Your task to perform on an android device: turn on wifi Image 0: 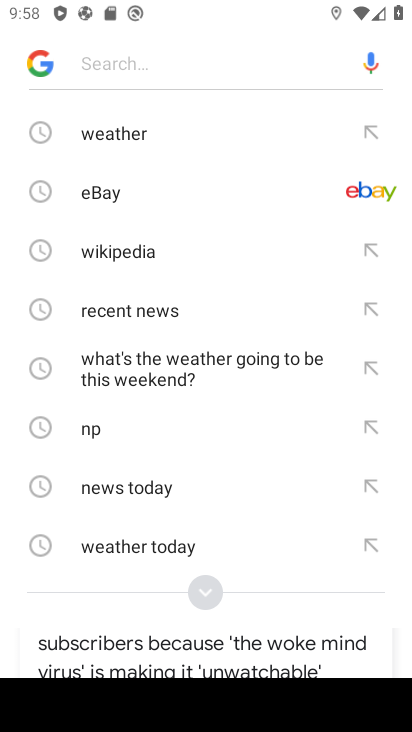
Step 0: press home button
Your task to perform on an android device: turn on wifi Image 1: 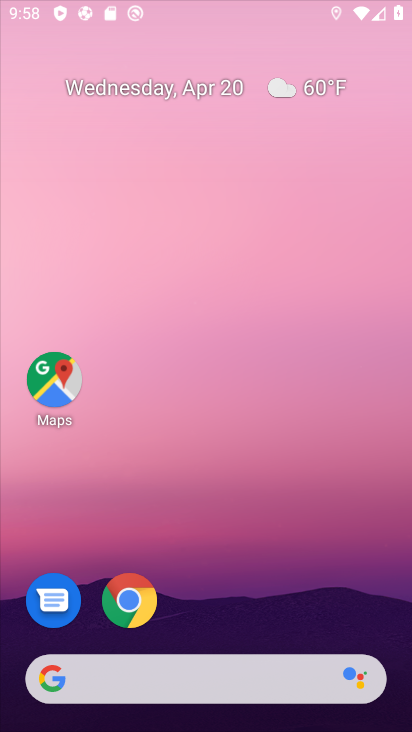
Step 1: drag from (222, 563) to (273, 108)
Your task to perform on an android device: turn on wifi Image 2: 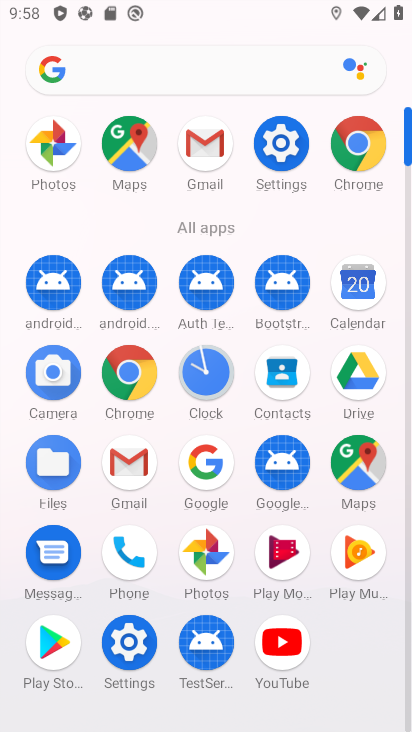
Step 2: click (277, 125)
Your task to perform on an android device: turn on wifi Image 3: 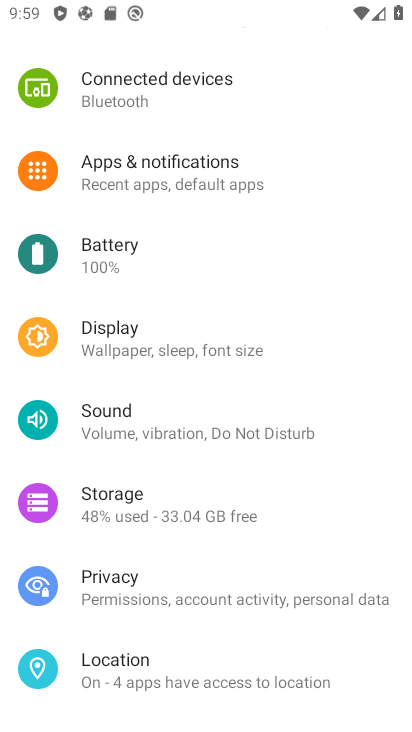
Step 3: drag from (181, 200) to (197, 569)
Your task to perform on an android device: turn on wifi Image 4: 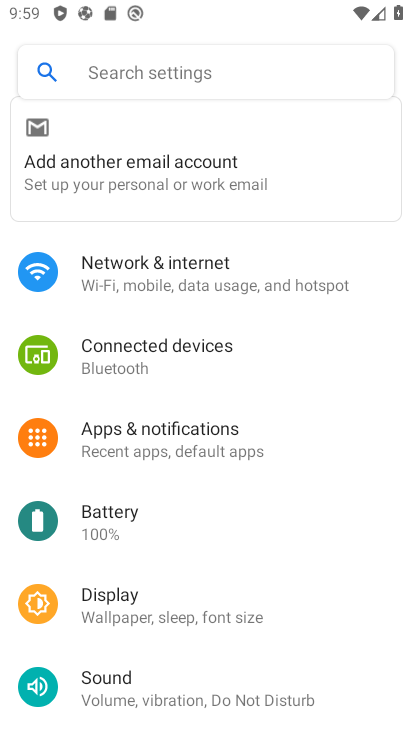
Step 4: click (182, 259)
Your task to perform on an android device: turn on wifi Image 5: 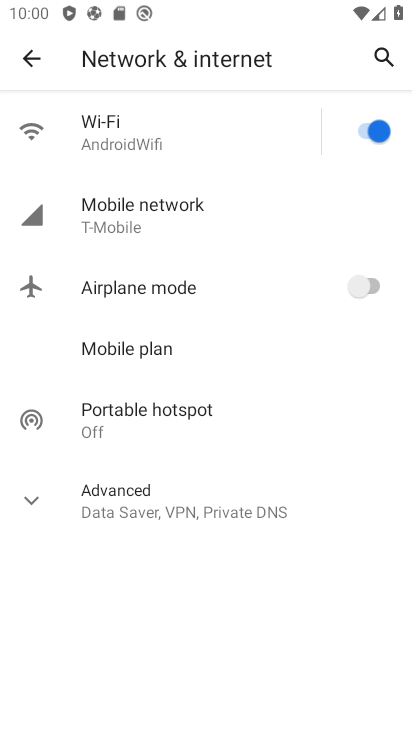
Step 5: task complete